Your task to perform on an android device: Open Google Chrome and click the shortcut for Amazon.com Image 0: 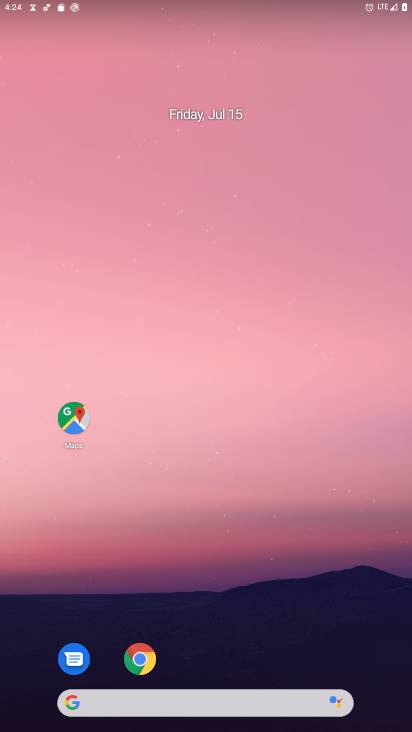
Step 0: drag from (278, 693) to (302, 9)
Your task to perform on an android device: Open Google Chrome and click the shortcut for Amazon.com Image 1: 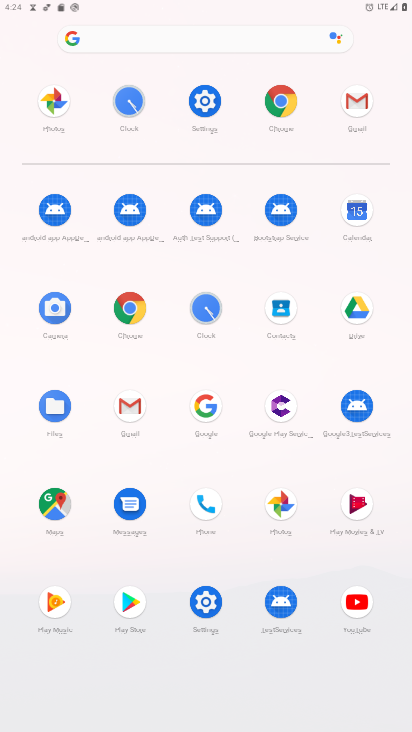
Step 1: click (118, 303)
Your task to perform on an android device: Open Google Chrome and click the shortcut for Amazon.com Image 2: 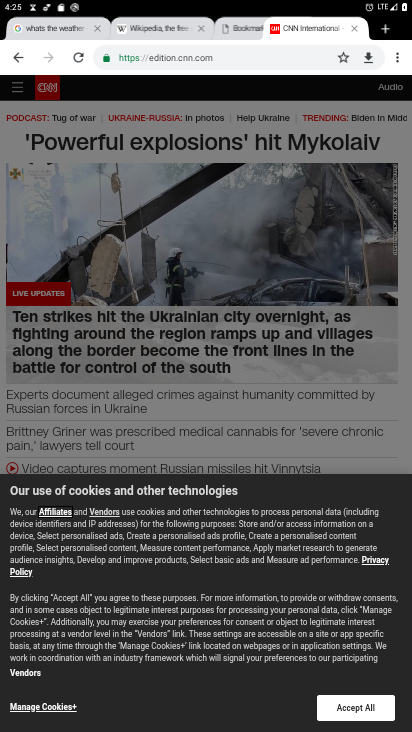
Step 2: drag from (397, 57) to (313, 61)
Your task to perform on an android device: Open Google Chrome and click the shortcut for Amazon.com Image 3: 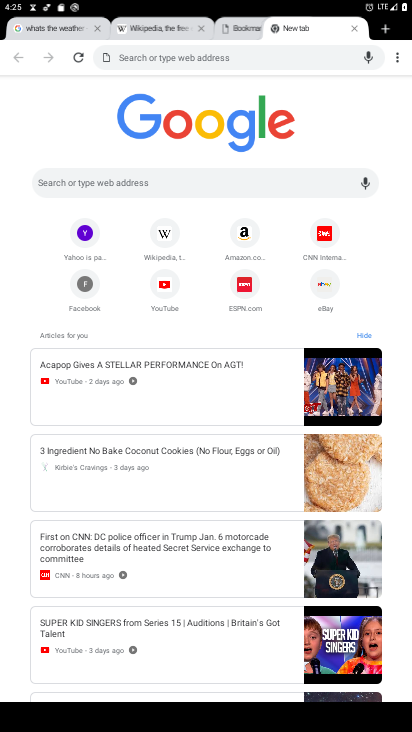
Step 3: click (247, 235)
Your task to perform on an android device: Open Google Chrome and click the shortcut for Amazon.com Image 4: 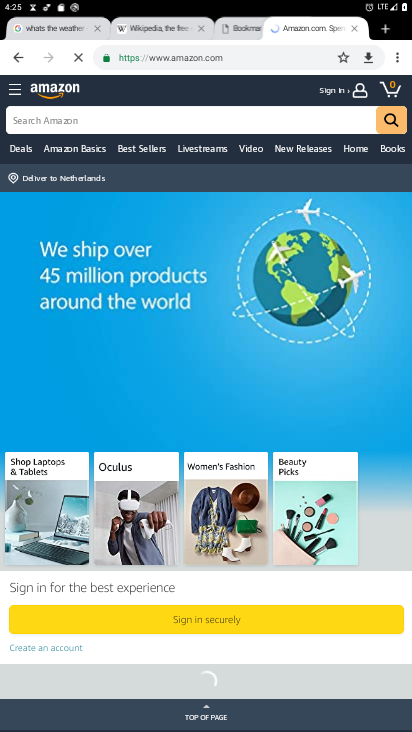
Step 4: task complete